Your task to perform on an android device: Open Google Maps and go to "Timeline" Image 0: 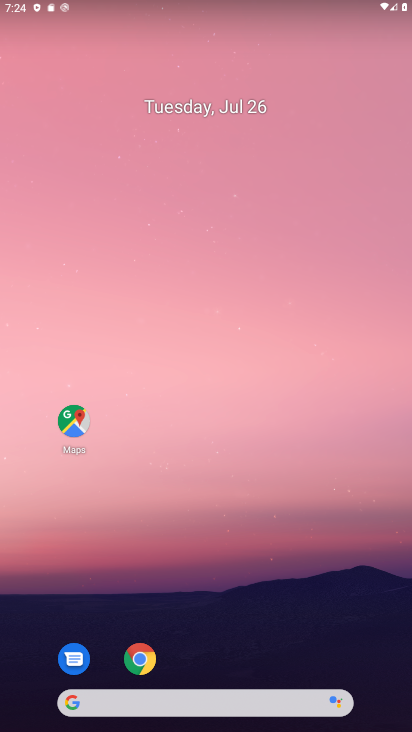
Step 0: click (70, 427)
Your task to perform on an android device: Open Google Maps and go to "Timeline" Image 1: 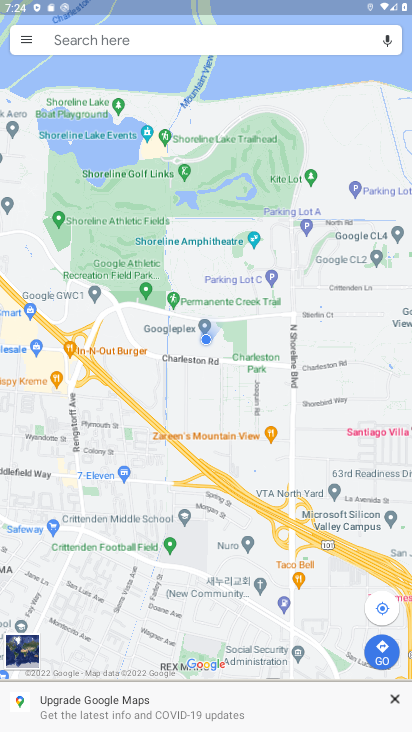
Step 1: click (27, 43)
Your task to perform on an android device: Open Google Maps and go to "Timeline" Image 2: 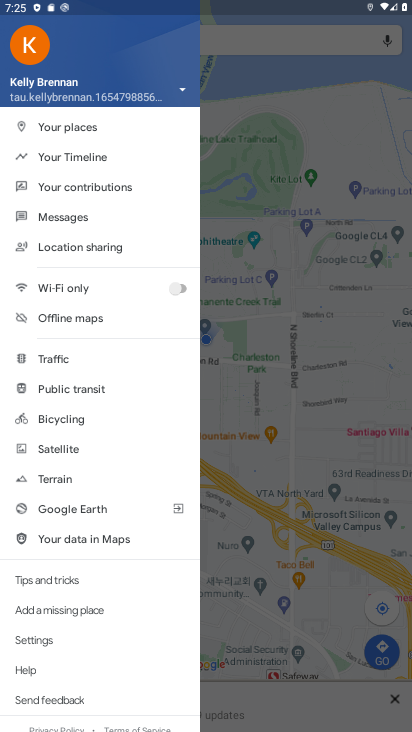
Step 2: click (42, 149)
Your task to perform on an android device: Open Google Maps and go to "Timeline" Image 3: 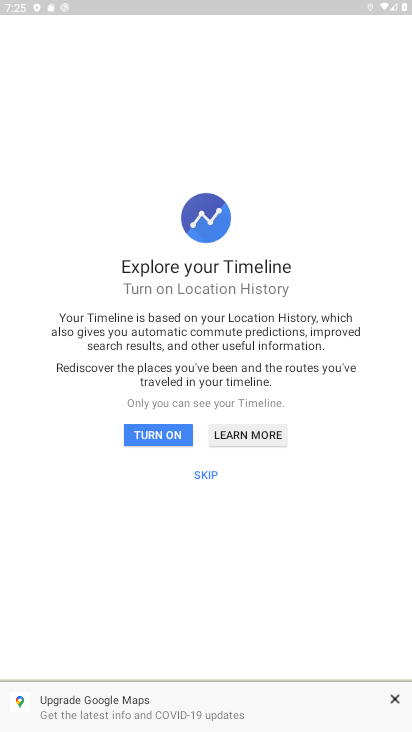
Step 3: task complete